Your task to perform on an android device: open app "Cash App" Image 0: 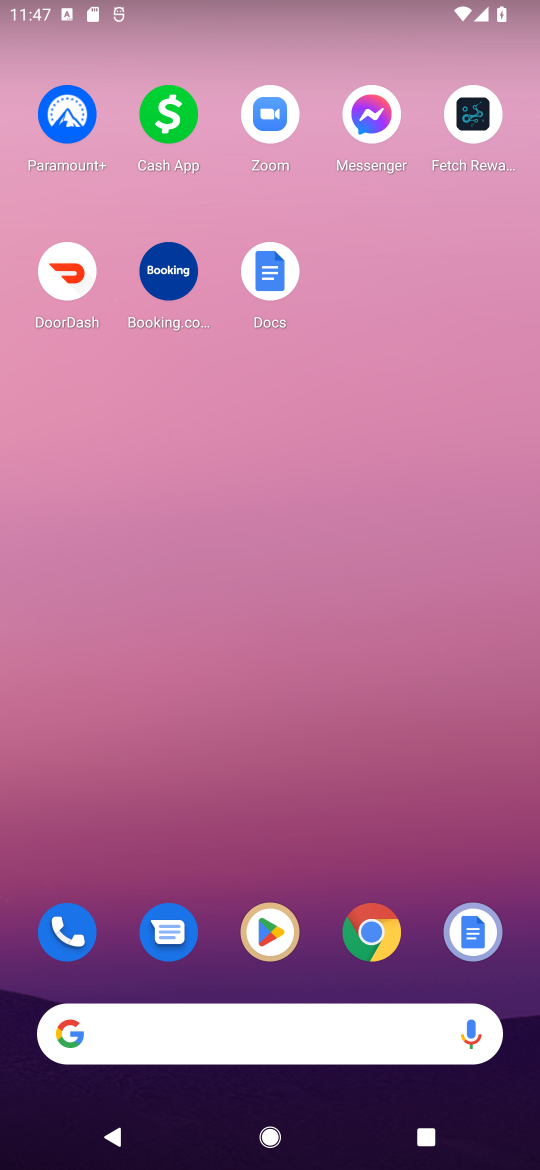
Step 0: click (262, 936)
Your task to perform on an android device: open app "Cash App" Image 1: 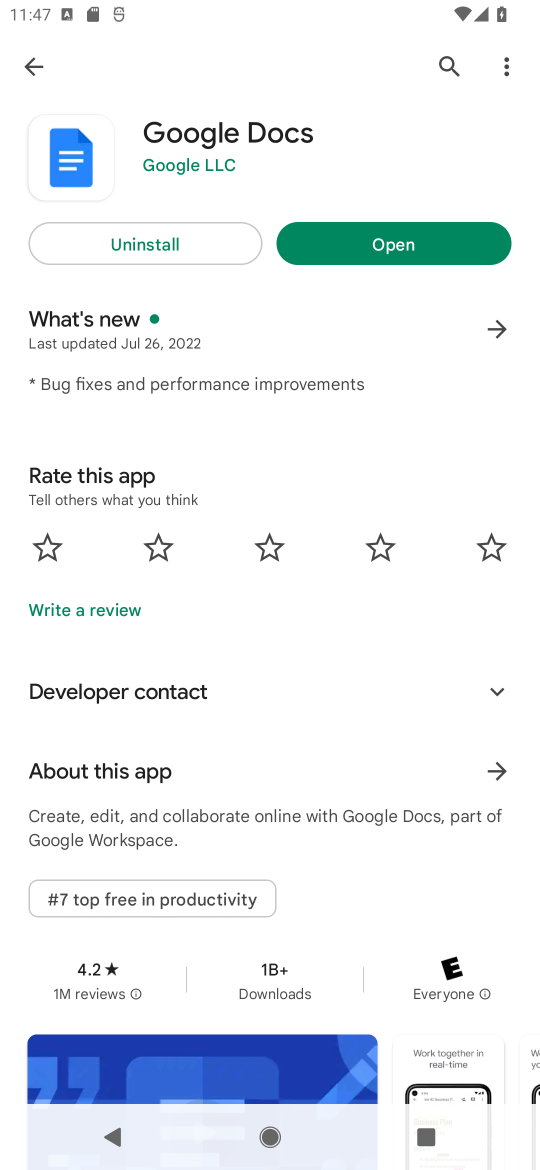
Step 1: click (440, 62)
Your task to perform on an android device: open app "Cash App" Image 2: 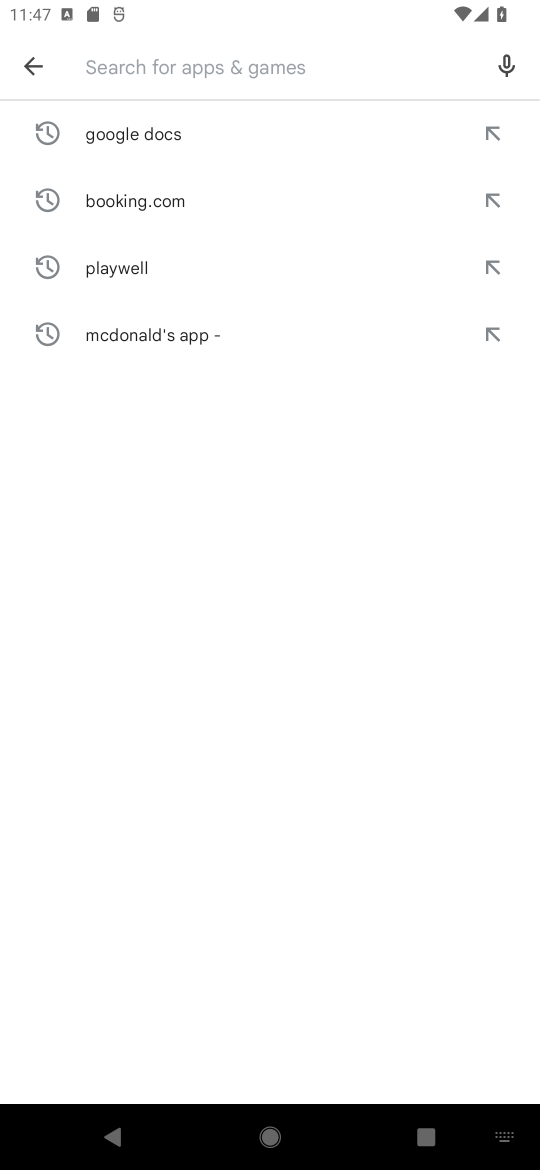
Step 2: click (179, 83)
Your task to perform on an android device: open app "Cash App" Image 3: 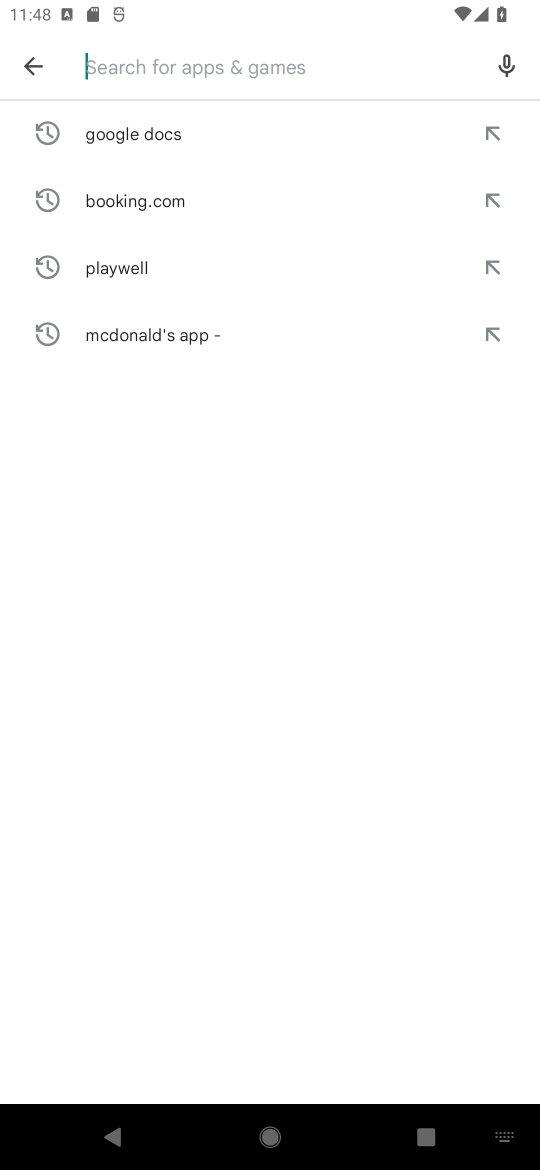
Step 3: type "Cash App"
Your task to perform on an android device: open app "Cash App" Image 4: 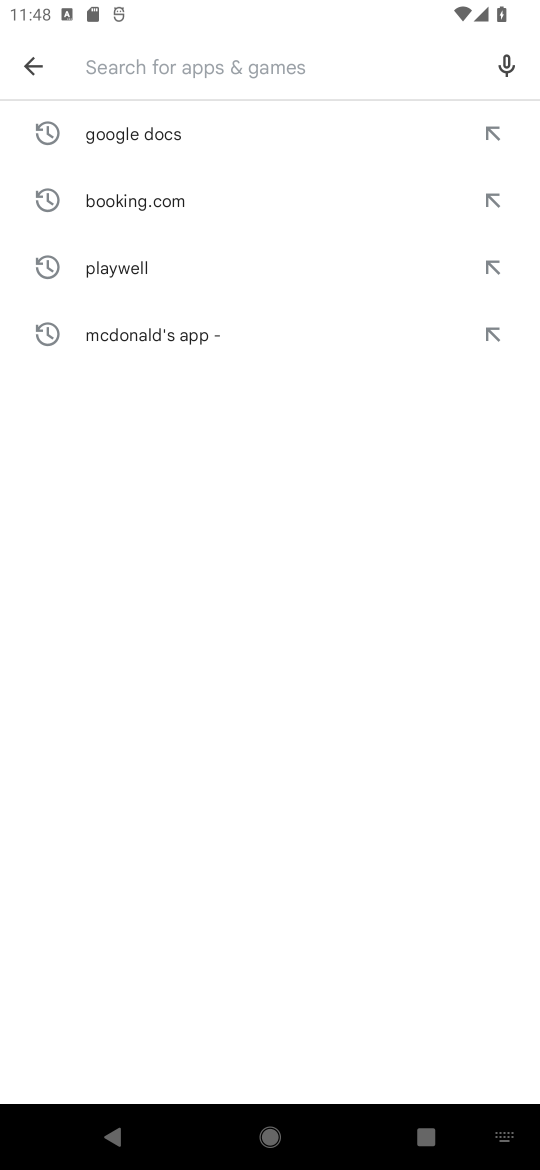
Step 4: click (339, 750)
Your task to perform on an android device: open app "Cash App" Image 5: 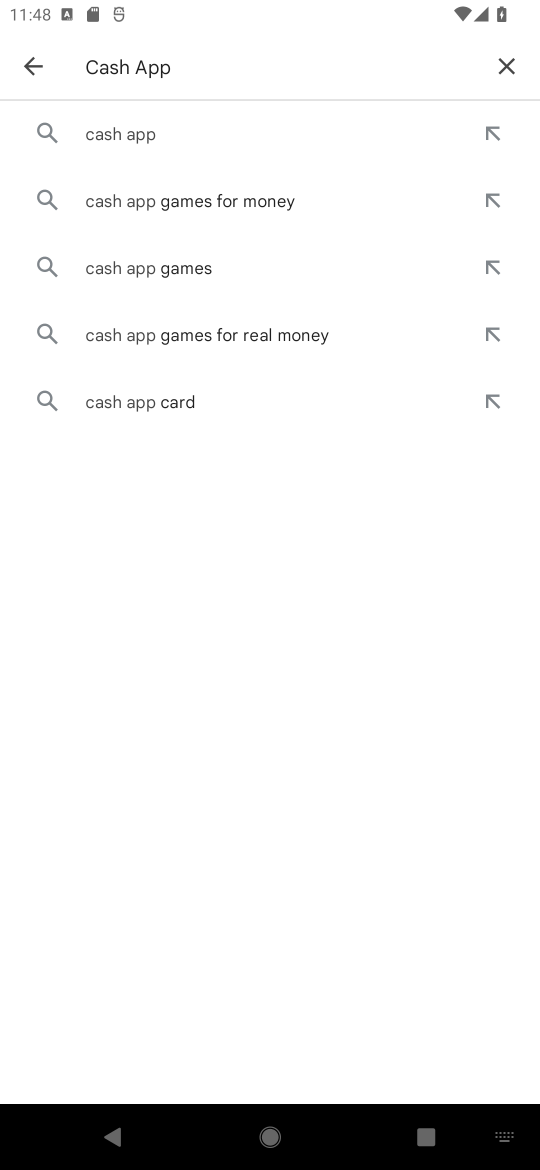
Step 5: click (167, 112)
Your task to perform on an android device: open app "Cash App" Image 6: 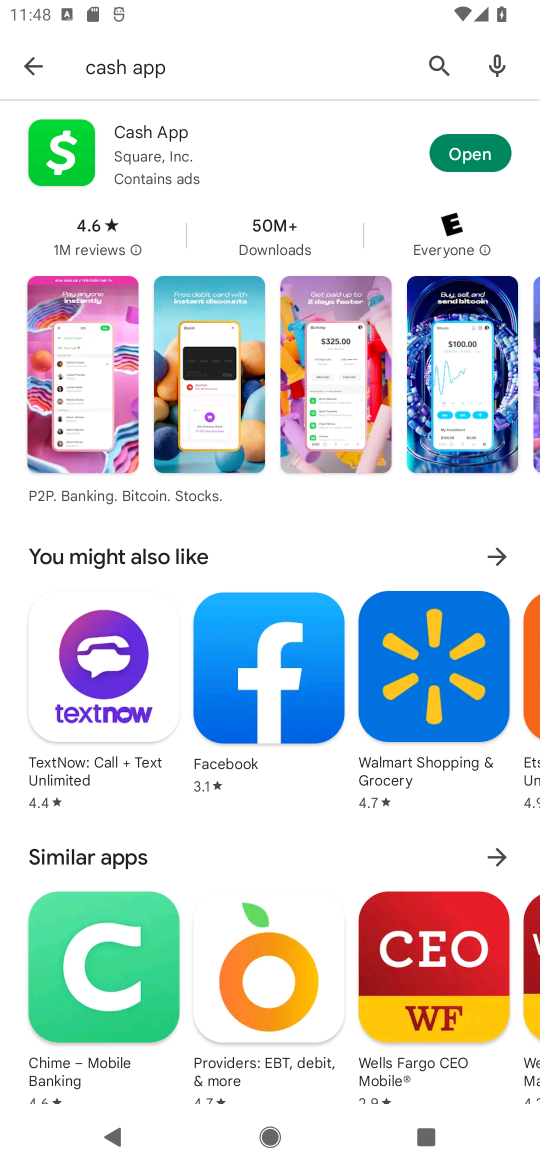
Step 6: click (459, 139)
Your task to perform on an android device: open app "Cash App" Image 7: 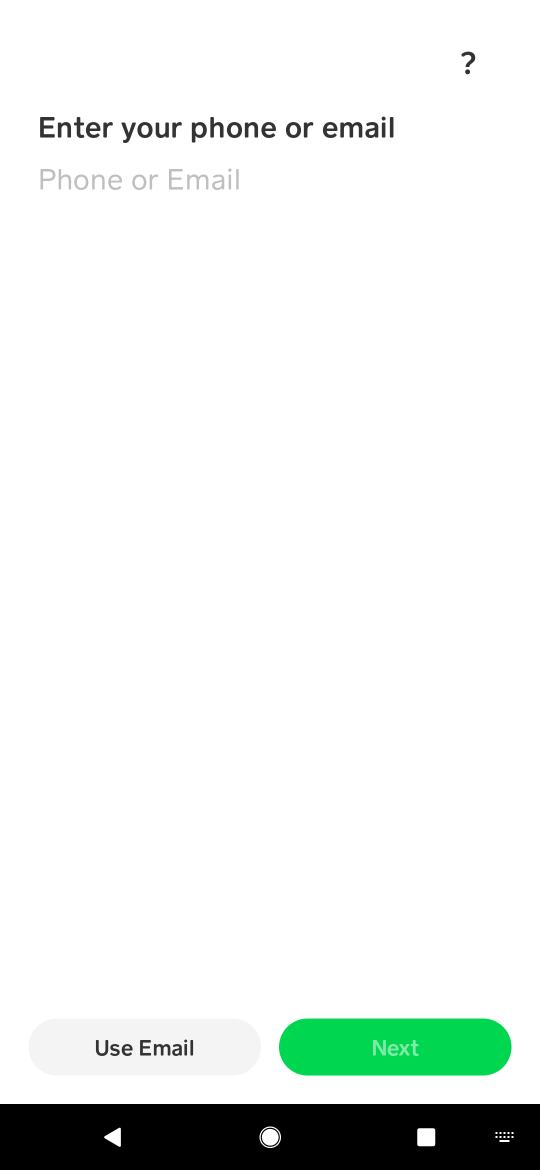
Step 7: task complete